Your task to perform on an android device: open app "Microsoft Authenticator" (install if not already installed) and enter user name: "Cornell@yahoo.com" and password: "bothersome" Image 0: 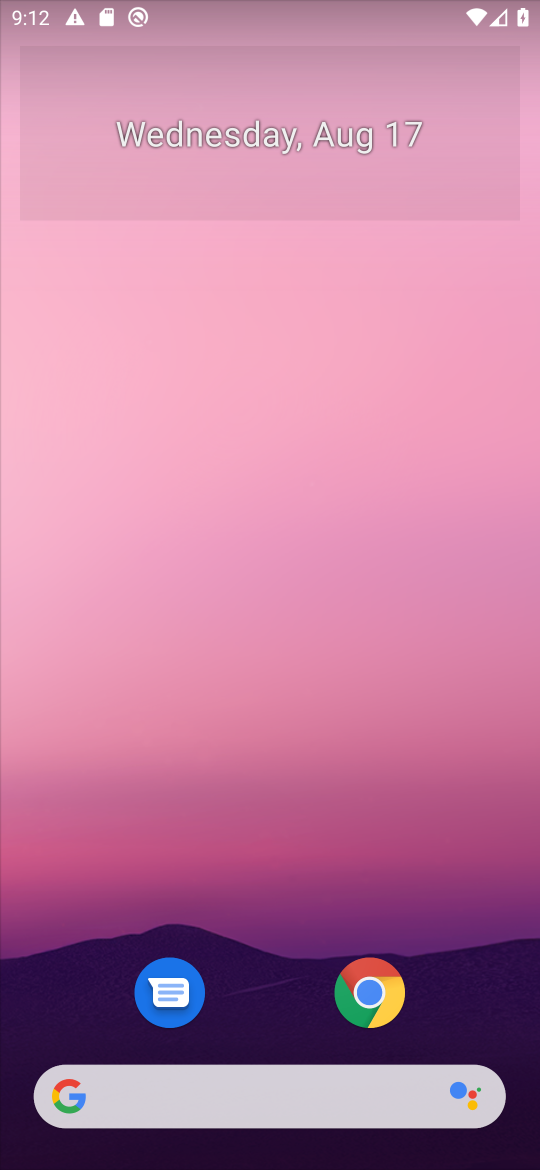
Step 0: drag from (179, 1096) to (211, 70)
Your task to perform on an android device: open app "Microsoft Authenticator" (install if not already installed) and enter user name: "Cornell@yahoo.com" and password: "bothersome" Image 1: 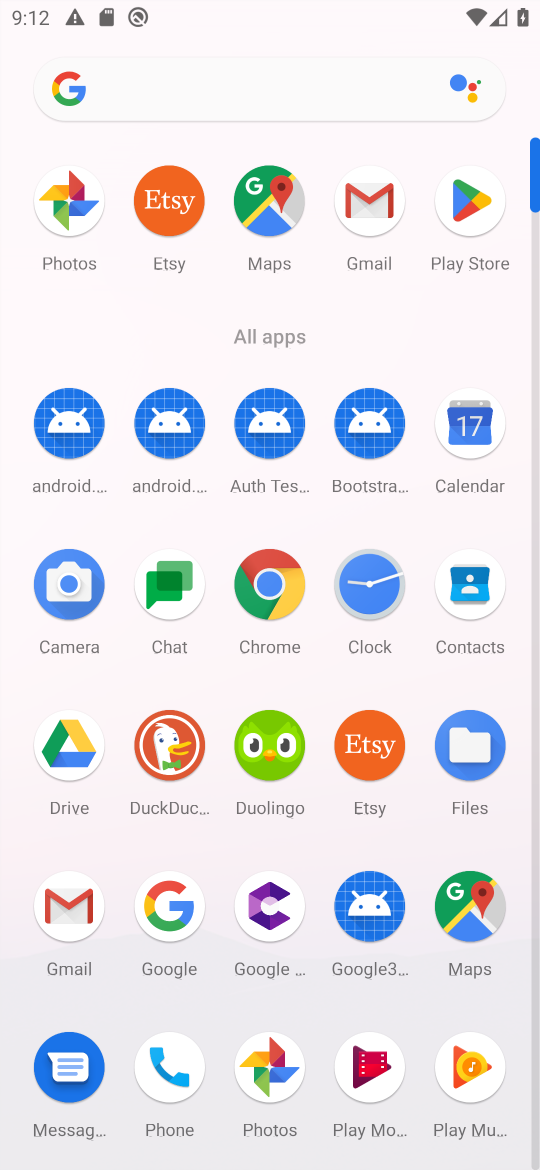
Step 1: click (470, 216)
Your task to perform on an android device: open app "Microsoft Authenticator" (install if not already installed) and enter user name: "Cornell@yahoo.com" and password: "bothersome" Image 2: 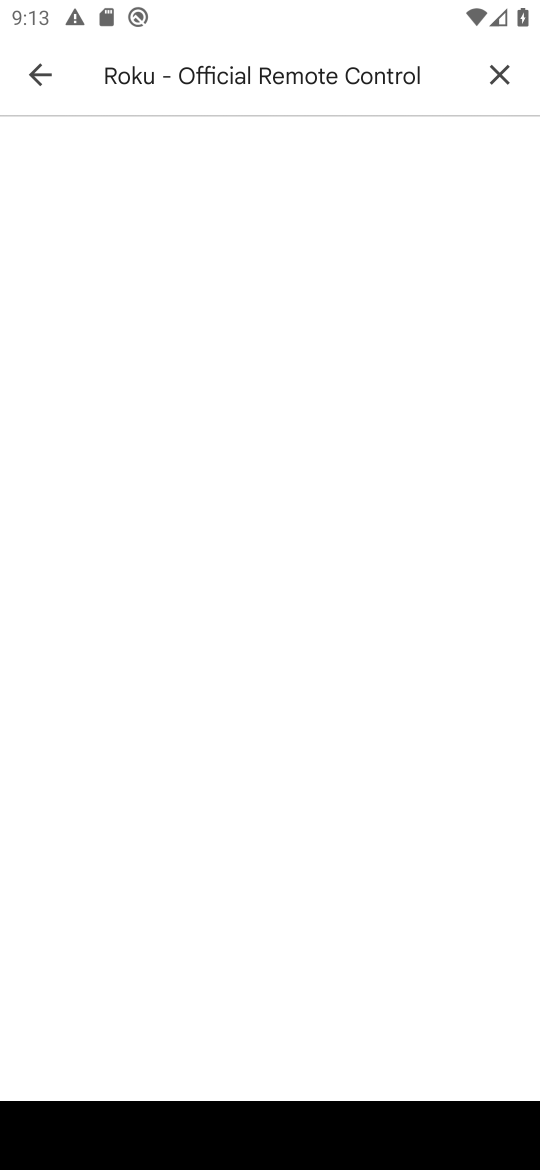
Step 2: press back button
Your task to perform on an android device: open app "Microsoft Authenticator" (install if not already installed) and enter user name: "Cornell@yahoo.com" and password: "bothersome" Image 3: 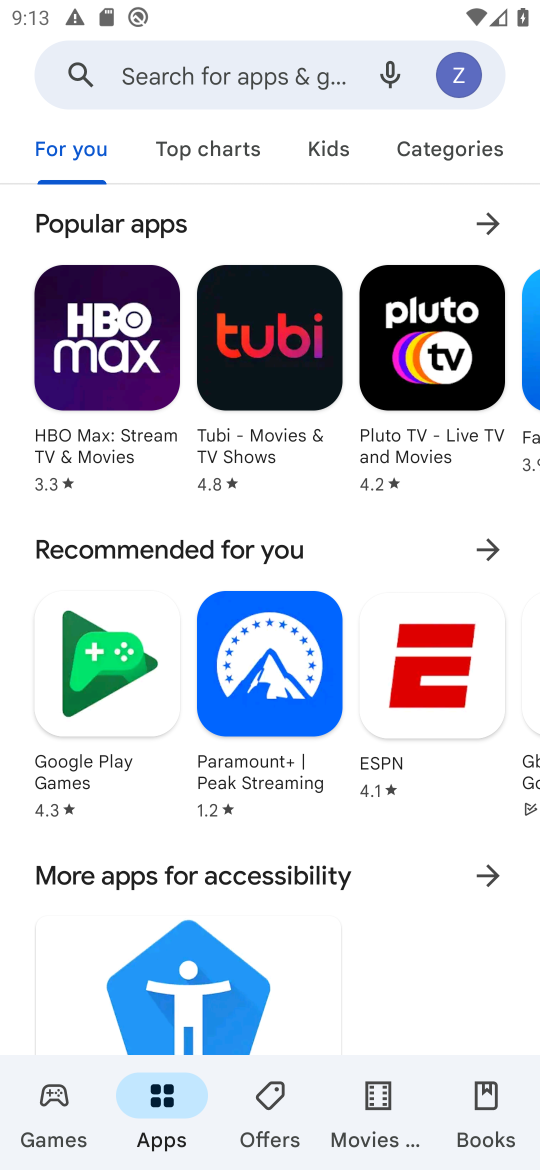
Step 3: click (240, 85)
Your task to perform on an android device: open app "Microsoft Authenticator" (install if not already installed) and enter user name: "Cornell@yahoo.com" and password: "bothersome" Image 4: 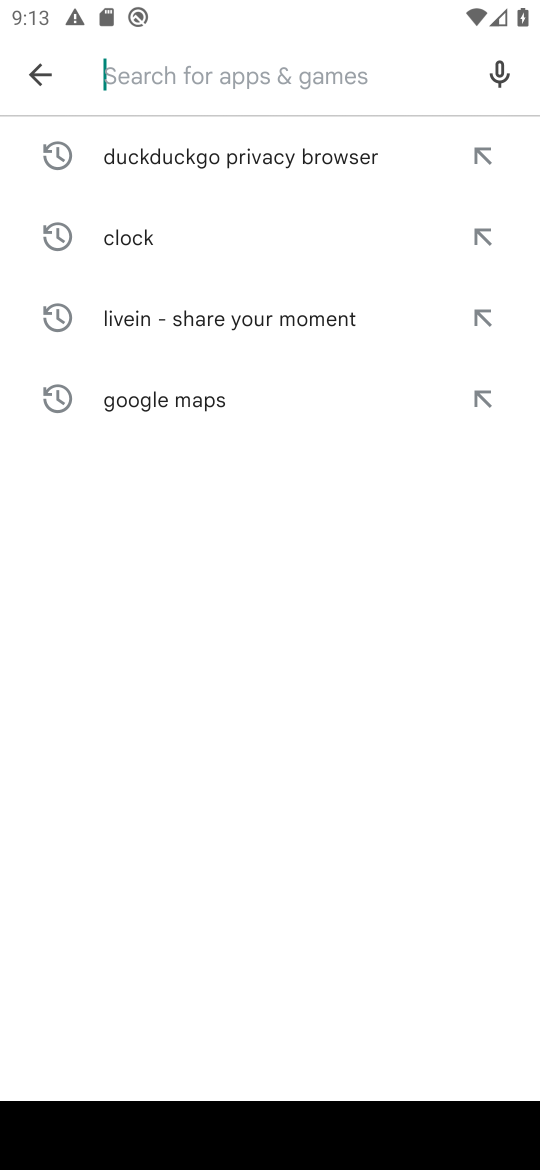
Step 4: click (169, 82)
Your task to perform on an android device: open app "Microsoft Authenticator" (install if not already installed) and enter user name: "Cornell@yahoo.com" and password: "bothersome" Image 5: 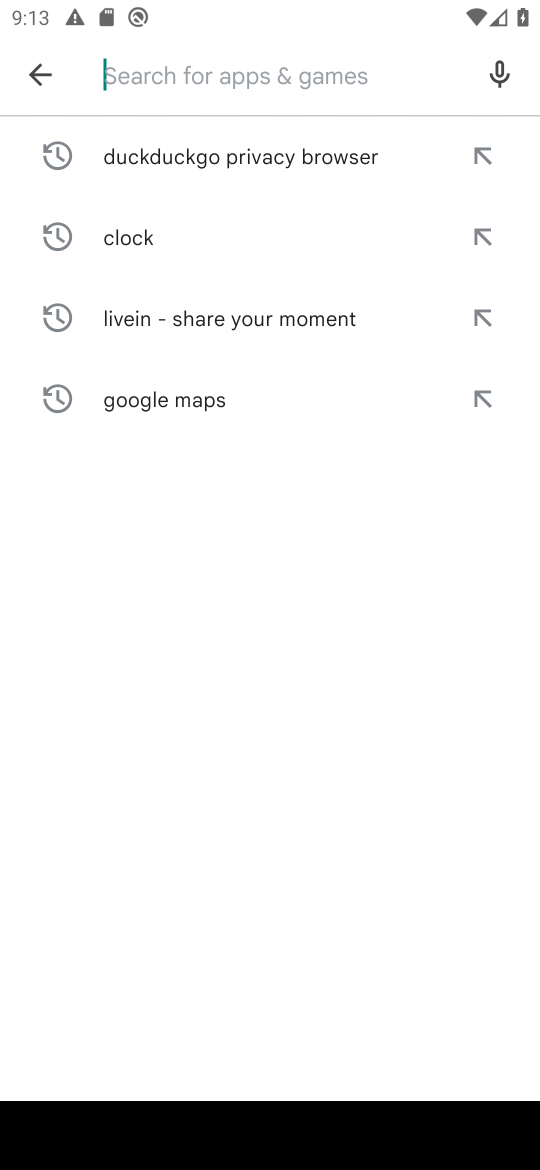
Step 5: type "Microsoft Authenticator"
Your task to perform on an android device: open app "Microsoft Authenticator" (install if not already installed) and enter user name: "Cornell@yahoo.com" and password: "bothersome" Image 6: 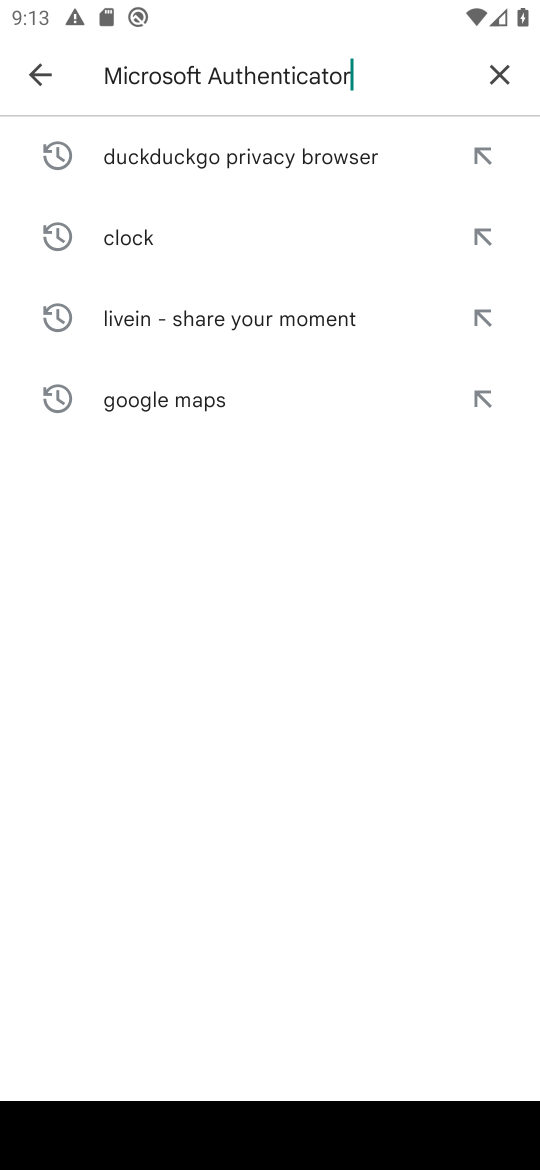
Step 6: type ""
Your task to perform on an android device: open app "Microsoft Authenticator" (install if not already installed) and enter user name: "Cornell@yahoo.com" and password: "bothersome" Image 7: 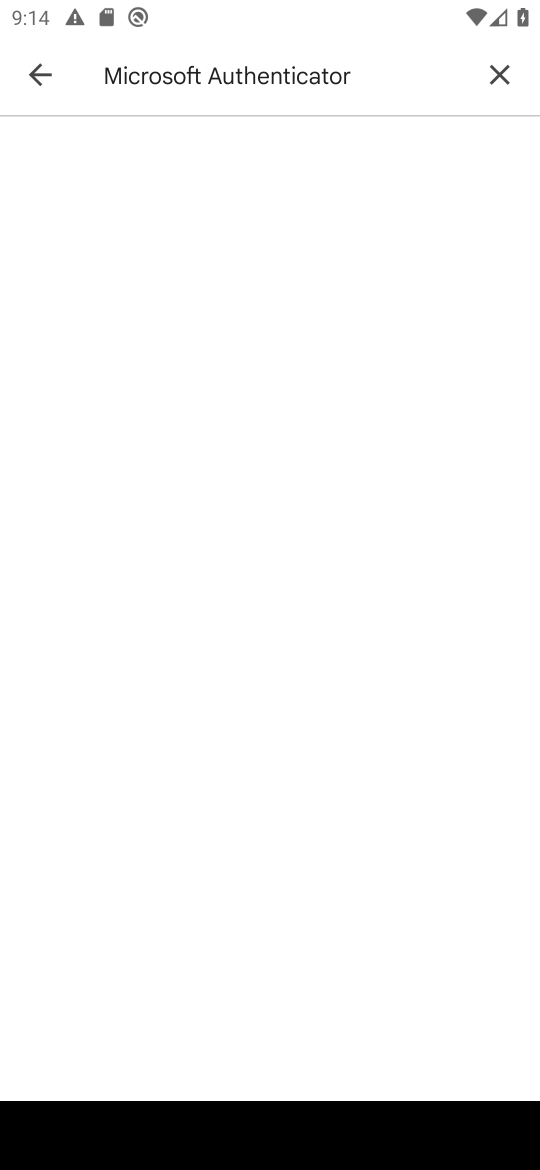
Step 7: task complete